Your task to perform on an android device: open device folders in google photos Image 0: 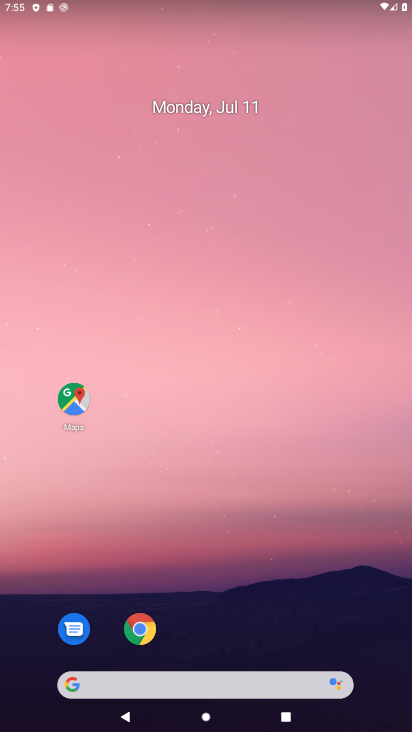
Step 0: drag from (217, 643) to (295, 167)
Your task to perform on an android device: open device folders in google photos Image 1: 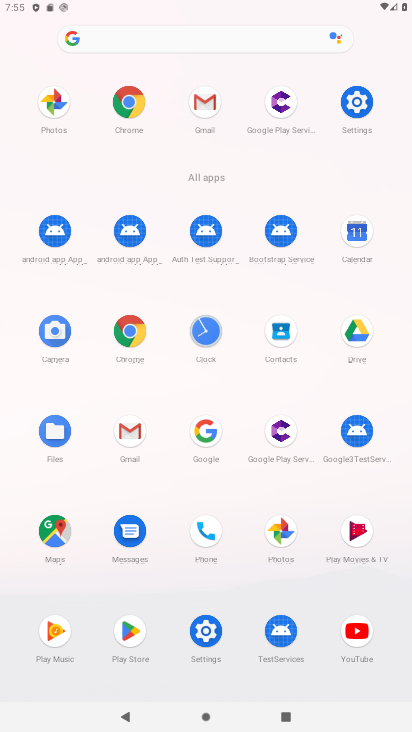
Step 1: click (278, 533)
Your task to perform on an android device: open device folders in google photos Image 2: 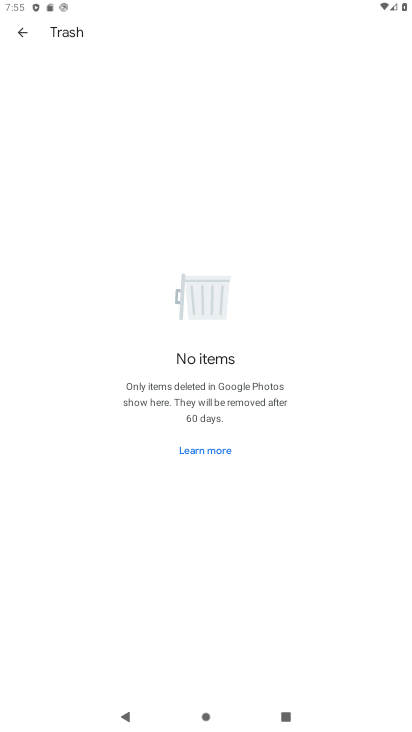
Step 2: press back button
Your task to perform on an android device: open device folders in google photos Image 3: 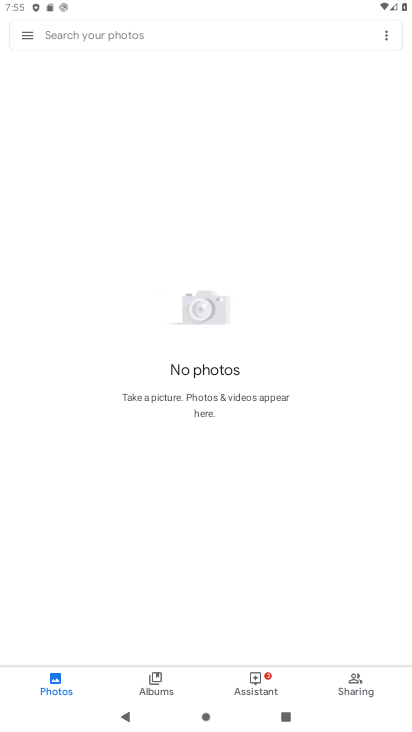
Step 3: click (24, 33)
Your task to perform on an android device: open device folders in google photos Image 4: 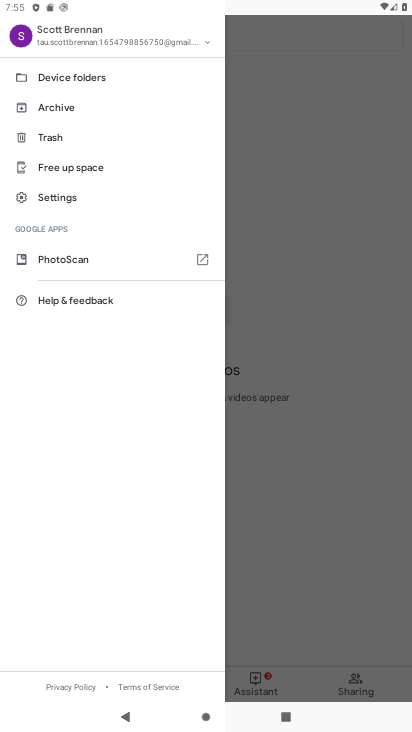
Step 4: click (89, 75)
Your task to perform on an android device: open device folders in google photos Image 5: 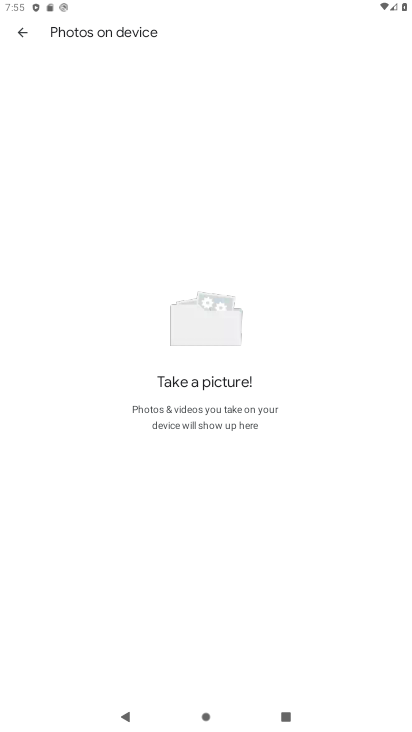
Step 5: task complete